Your task to perform on an android device: check android version Image 0: 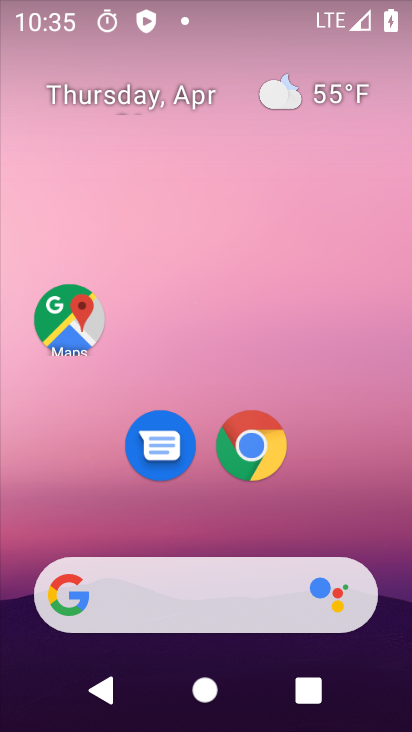
Step 0: drag from (363, 530) to (379, 0)
Your task to perform on an android device: check android version Image 1: 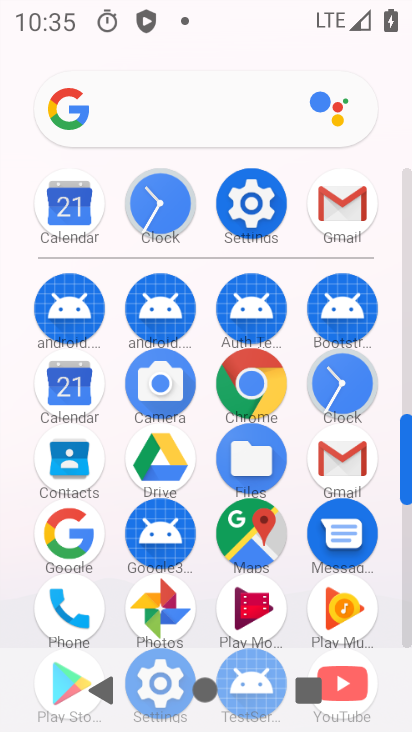
Step 1: click (242, 193)
Your task to perform on an android device: check android version Image 2: 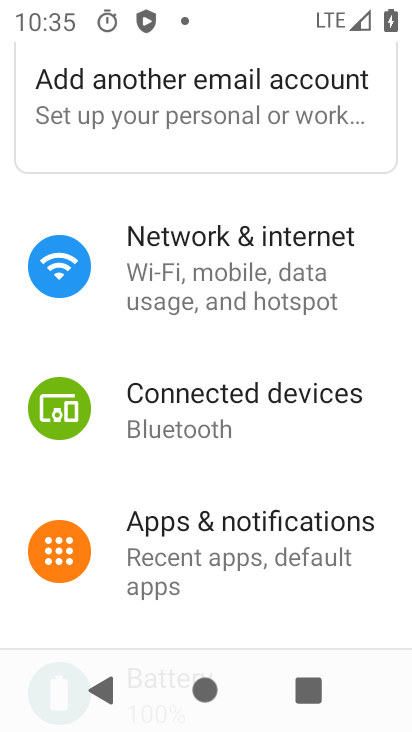
Step 2: drag from (350, 584) to (286, 11)
Your task to perform on an android device: check android version Image 3: 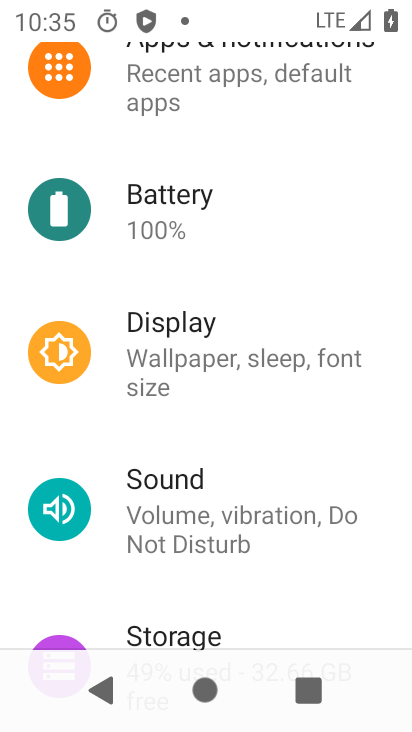
Step 3: drag from (323, 498) to (231, 97)
Your task to perform on an android device: check android version Image 4: 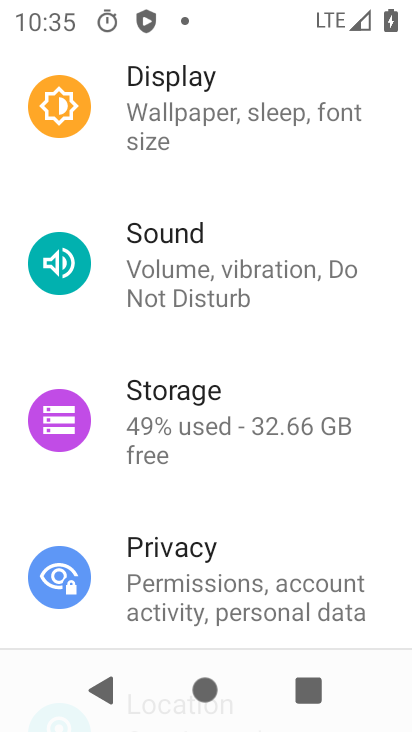
Step 4: drag from (224, 516) to (192, 9)
Your task to perform on an android device: check android version Image 5: 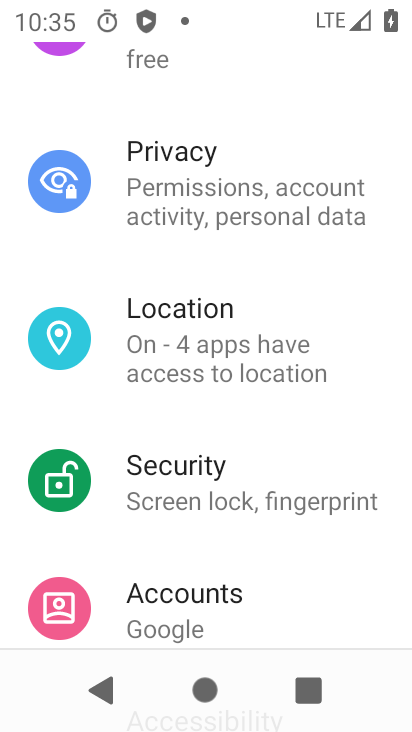
Step 5: drag from (327, 454) to (256, 4)
Your task to perform on an android device: check android version Image 6: 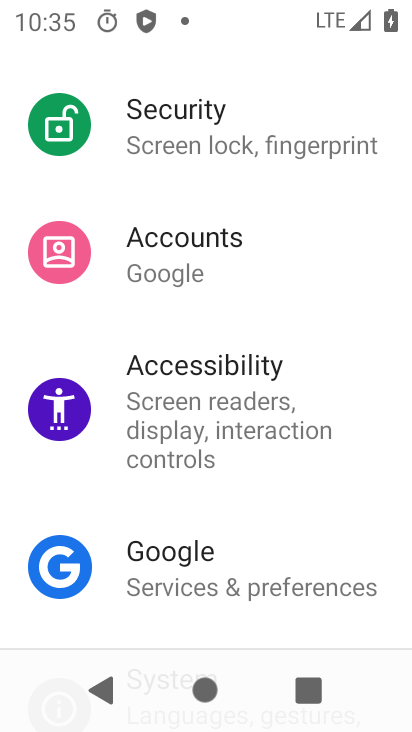
Step 6: drag from (258, 528) to (219, 89)
Your task to perform on an android device: check android version Image 7: 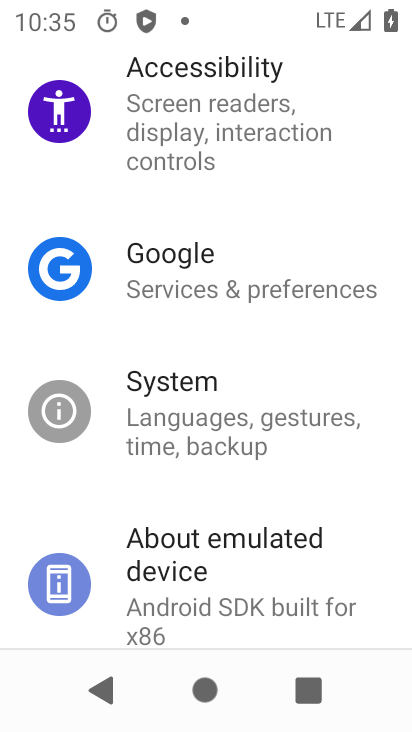
Step 7: drag from (241, 545) to (208, 47)
Your task to perform on an android device: check android version Image 8: 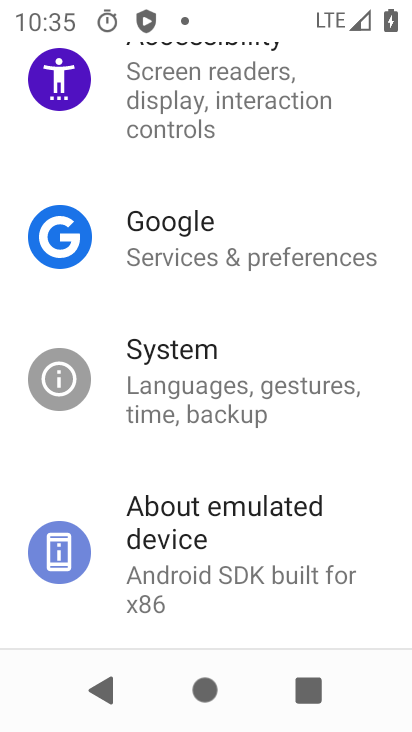
Step 8: click (201, 544)
Your task to perform on an android device: check android version Image 9: 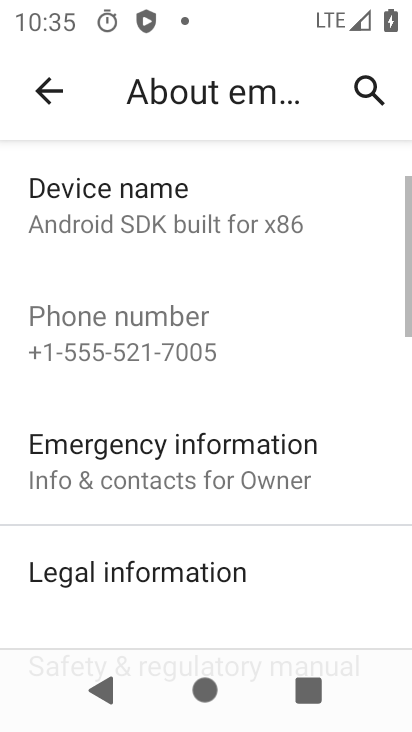
Step 9: drag from (312, 587) to (256, 0)
Your task to perform on an android device: check android version Image 10: 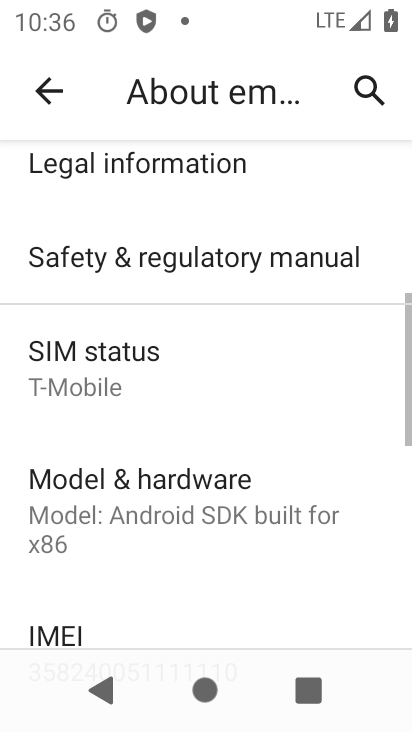
Step 10: drag from (301, 526) to (208, 9)
Your task to perform on an android device: check android version Image 11: 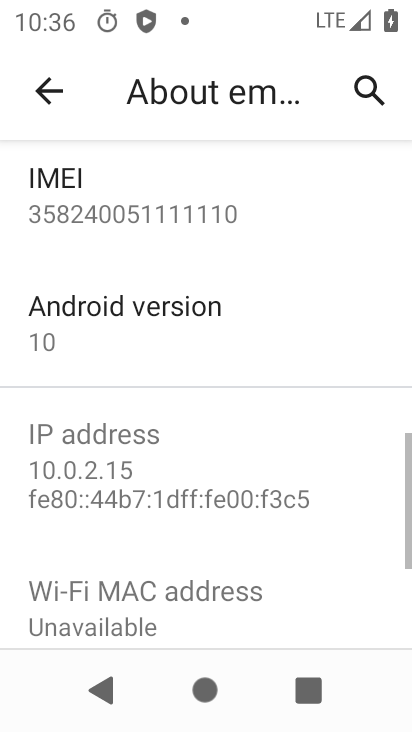
Step 11: click (103, 326)
Your task to perform on an android device: check android version Image 12: 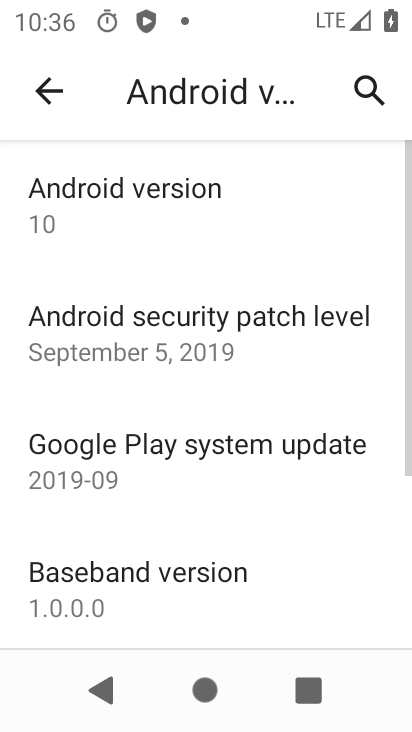
Step 12: task complete